Your task to perform on an android device: toggle location history Image 0: 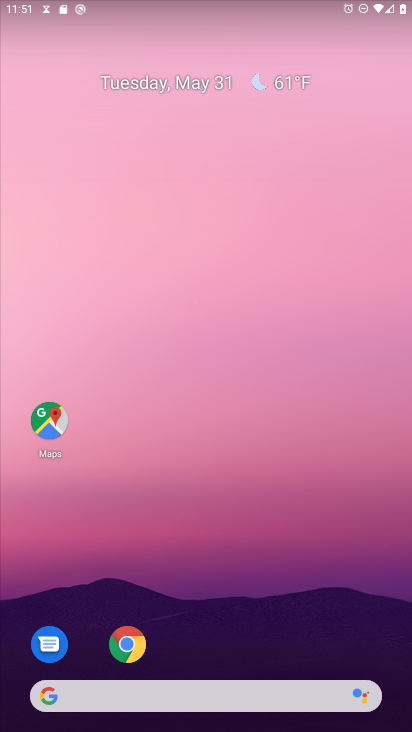
Step 0: drag from (188, 652) to (190, 159)
Your task to perform on an android device: toggle location history Image 1: 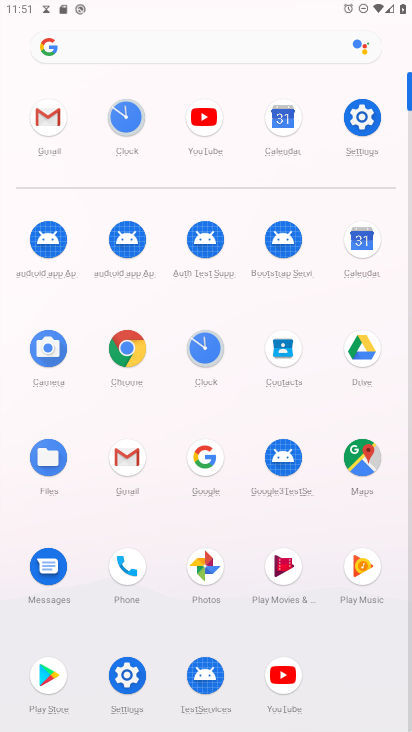
Step 1: click (351, 114)
Your task to perform on an android device: toggle location history Image 2: 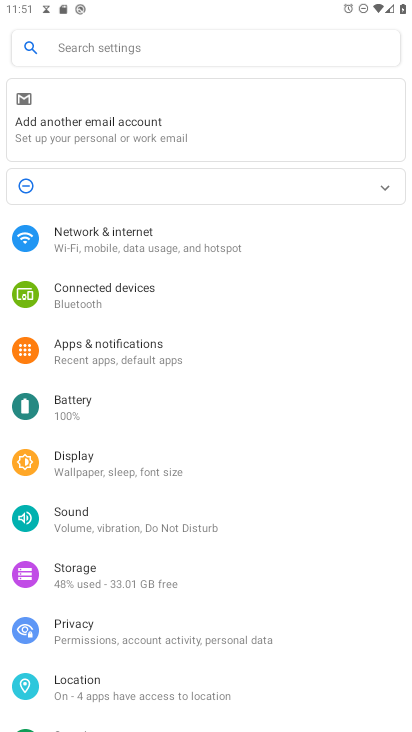
Step 2: click (80, 683)
Your task to perform on an android device: toggle location history Image 3: 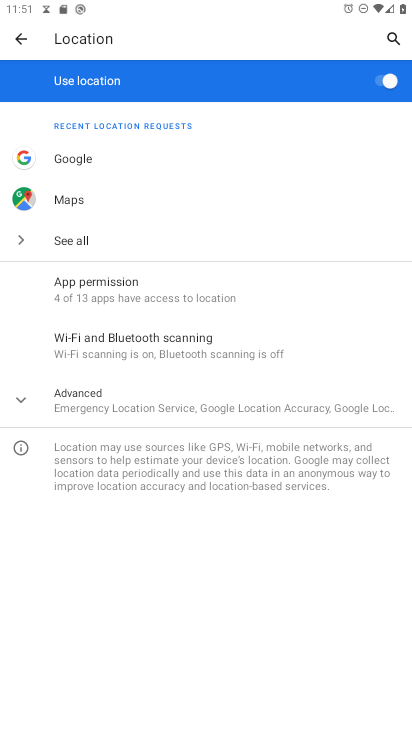
Step 3: click (97, 401)
Your task to perform on an android device: toggle location history Image 4: 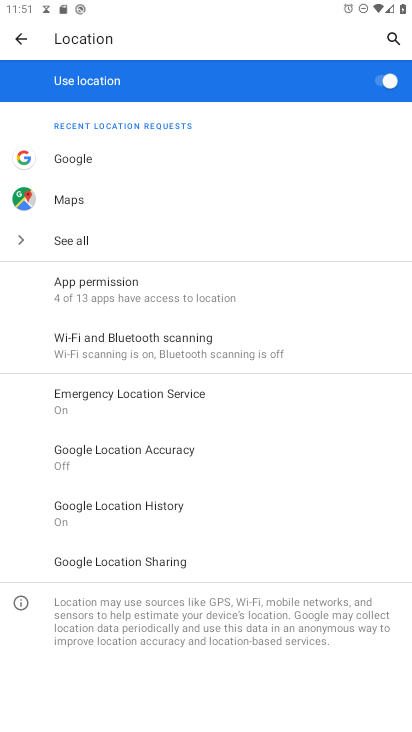
Step 4: click (133, 504)
Your task to perform on an android device: toggle location history Image 5: 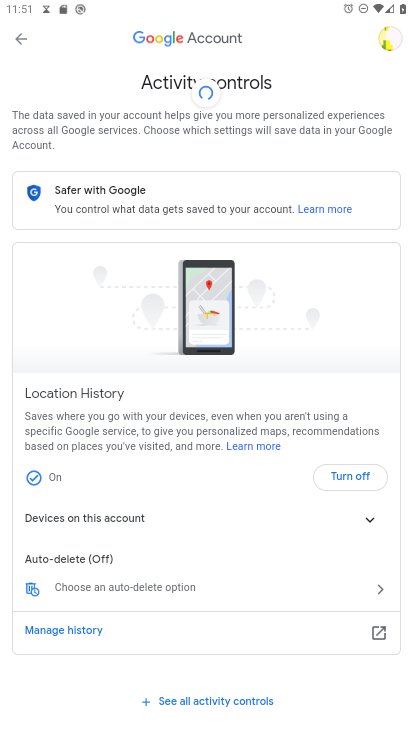
Step 5: click (340, 473)
Your task to perform on an android device: toggle location history Image 6: 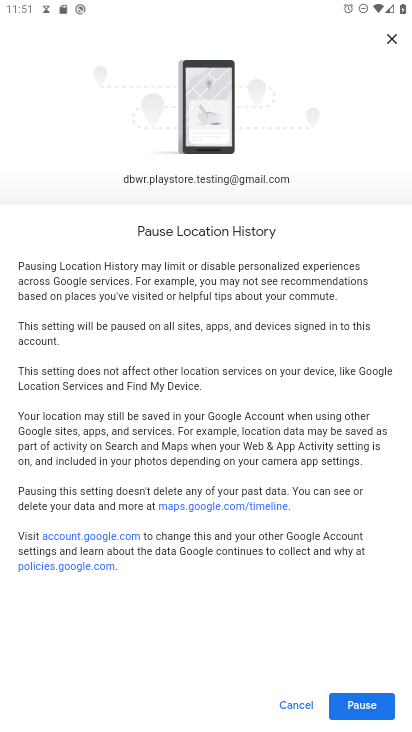
Step 6: click (354, 708)
Your task to perform on an android device: toggle location history Image 7: 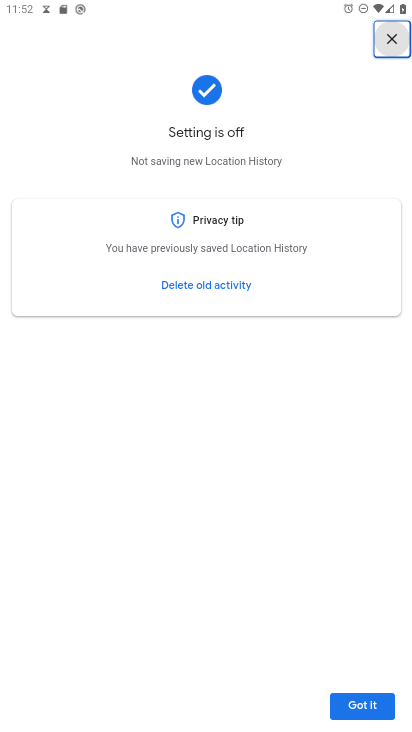
Step 7: click (359, 708)
Your task to perform on an android device: toggle location history Image 8: 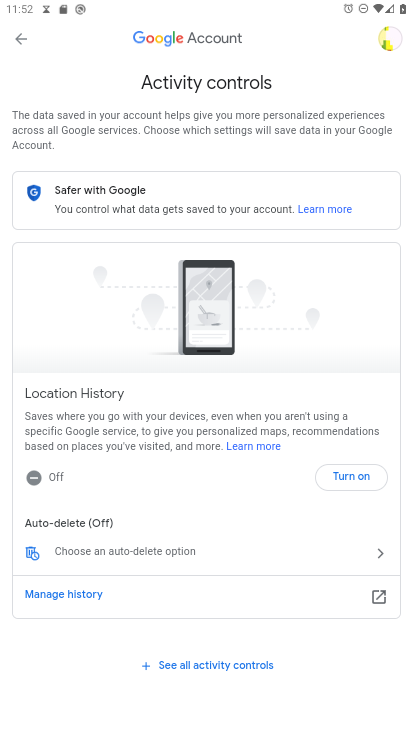
Step 8: task complete